Your task to perform on an android device: Open internet settings Image 0: 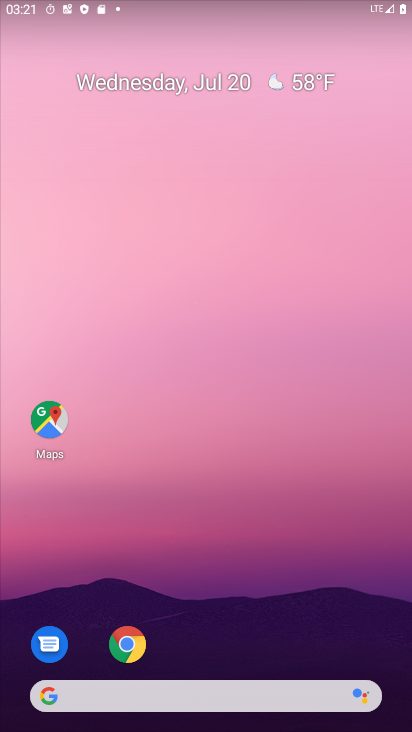
Step 0: click (161, 293)
Your task to perform on an android device: Open internet settings Image 1: 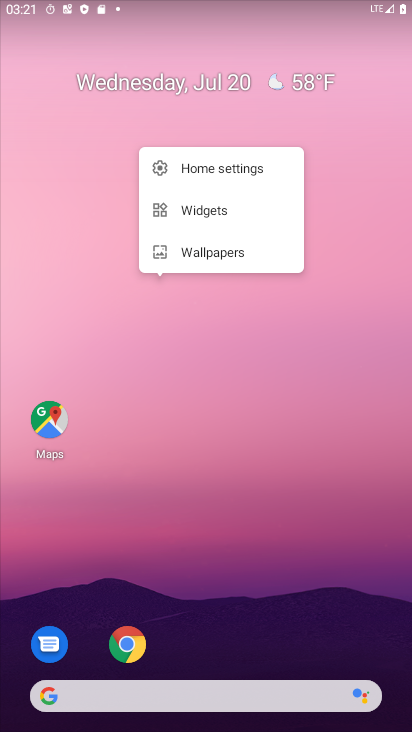
Step 1: drag from (16, 692) to (208, 62)
Your task to perform on an android device: Open internet settings Image 2: 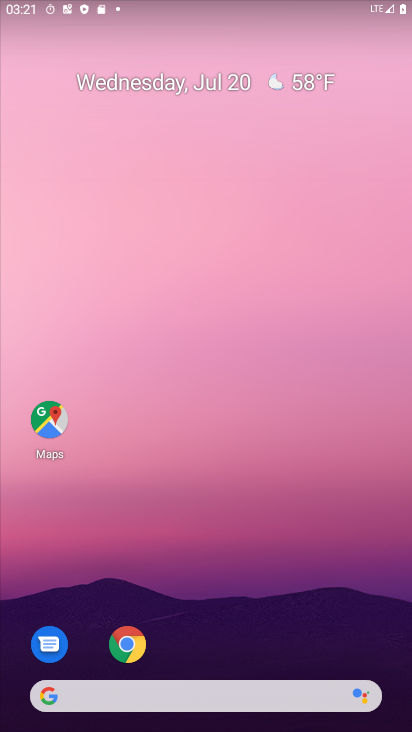
Step 2: drag from (87, 549) to (281, 43)
Your task to perform on an android device: Open internet settings Image 3: 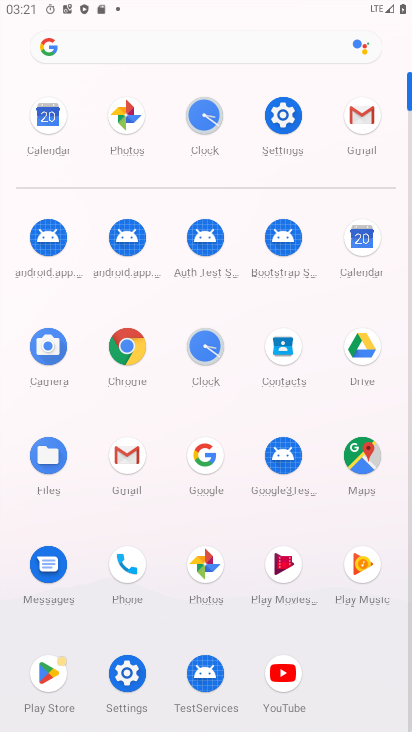
Step 3: click (123, 680)
Your task to perform on an android device: Open internet settings Image 4: 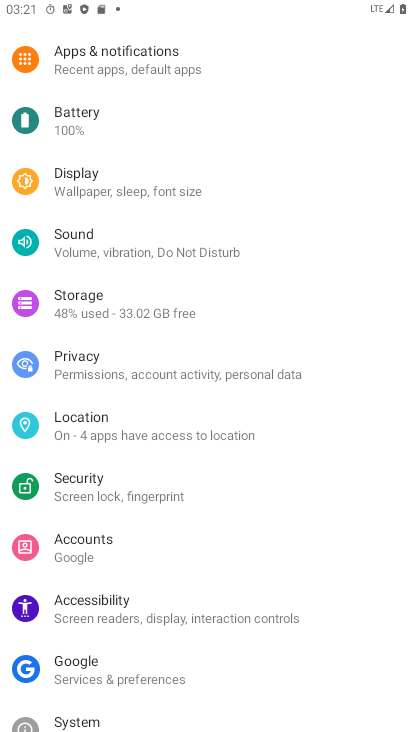
Step 4: drag from (263, 57) to (281, 335)
Your task to perform on an android device: Open internet settings Image 5: 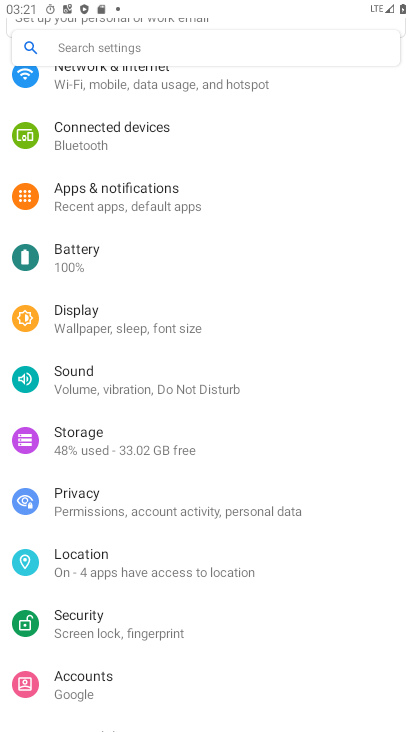
Step 5: drag from (275, 107) to (333, 498)
Your task to perform on an android device: Open internet settings Image 6: 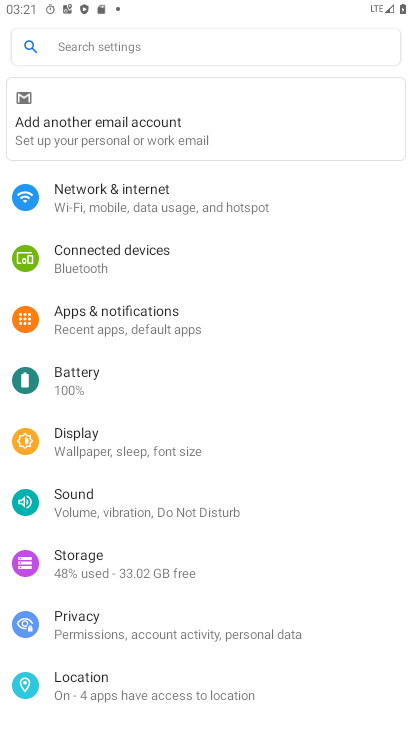
Step 6: click (105, 185)
Your task to perform on an android device: Open internet settings Image 7: 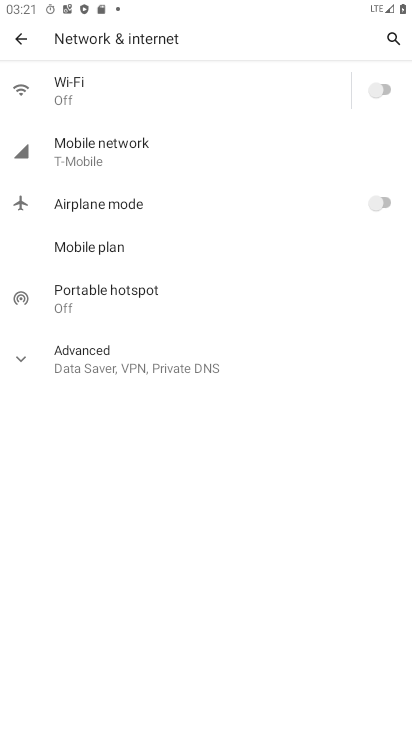
Step 7: task complete